Your task to perform on an android device: install app "Google Find My Device" Image 0: 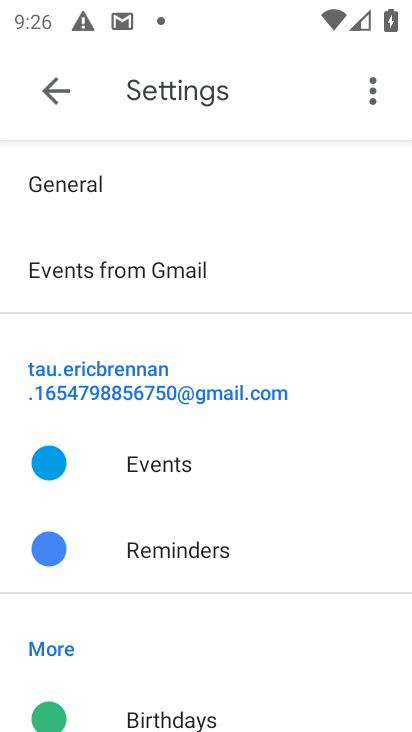
Step 0: press home button
Your task to perform on an android device: install app "Google Find My Device" Image 1: 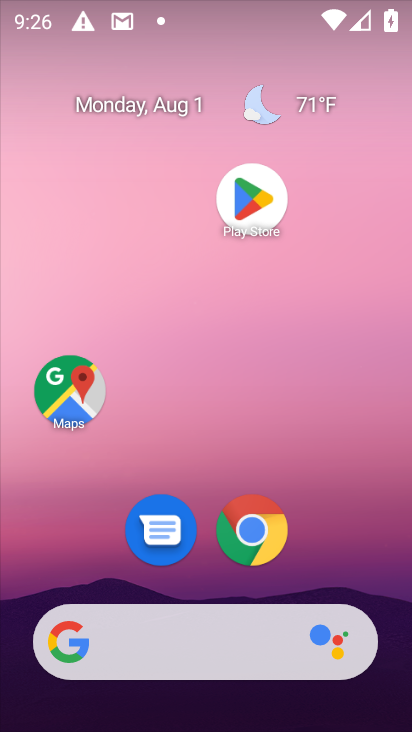
Step 1: click (283, 197)
Your task to perform on an android device: install app "Google Find My Device" Image 2: 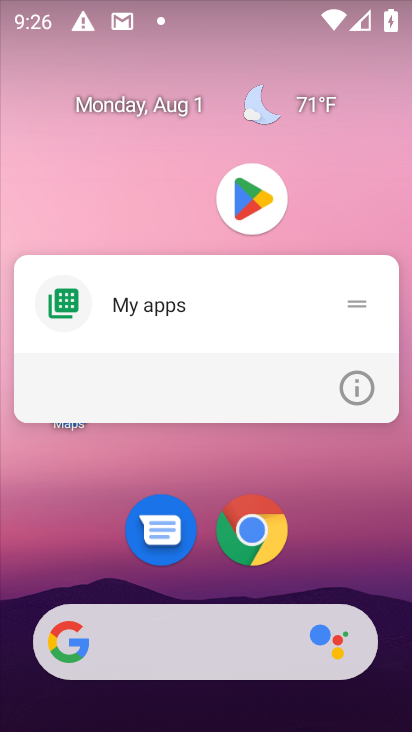
Step 2: click (234, 203)
Your task to perform on an android device: install app "Google Find My Device" Image 3: 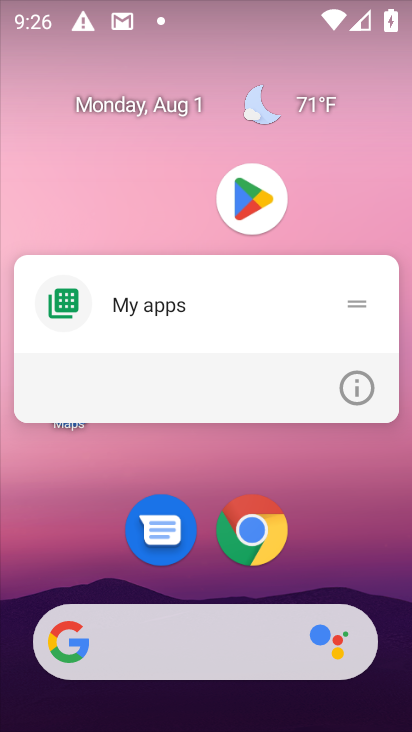
Step 3: click (234, 203)
Your task to perform on an android device: install app "Google Find My Device" Image 4: 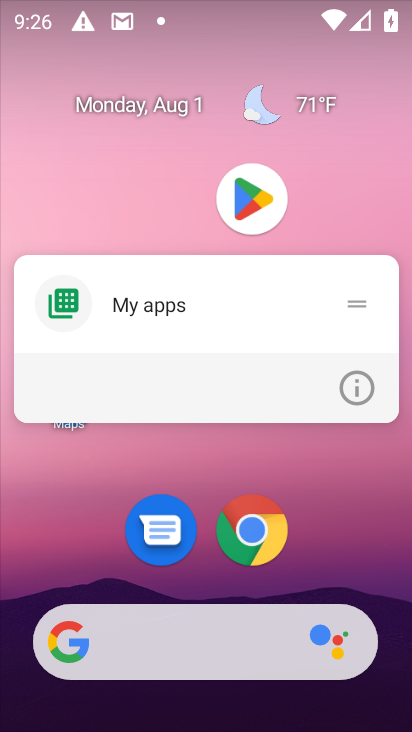
Step 4: click (271, 197)
Your task to perform on an android device: install app "Google Find My Device" Image 5: 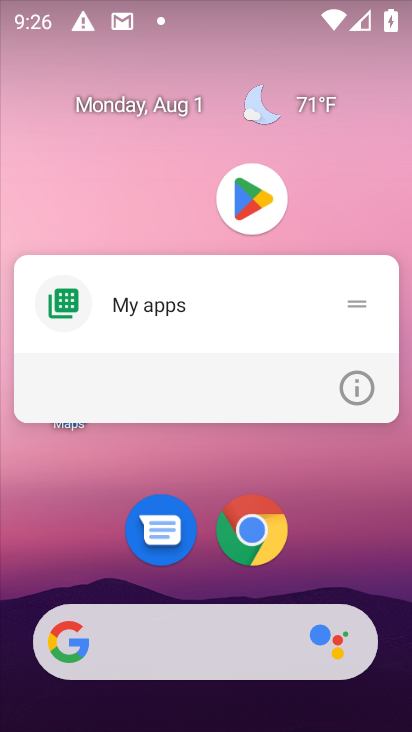
Step 5: click (278, 177)
Your task to perform on an android device: install app "Google Find My Device" Image 6: 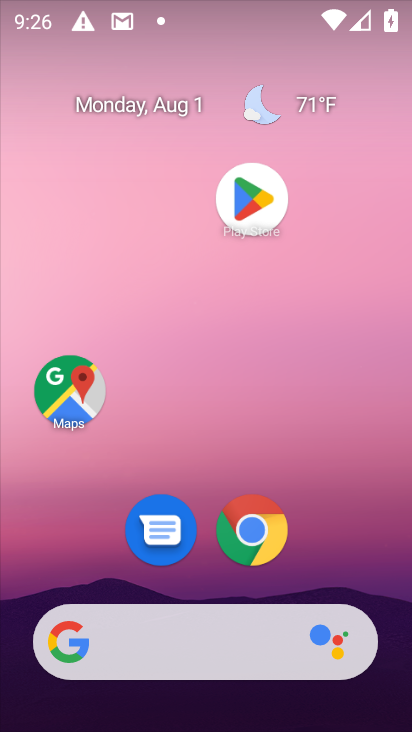
Step 6: click (222, 180)
Your task to perform on an android device: install app "Google Find My Device" Image 7: 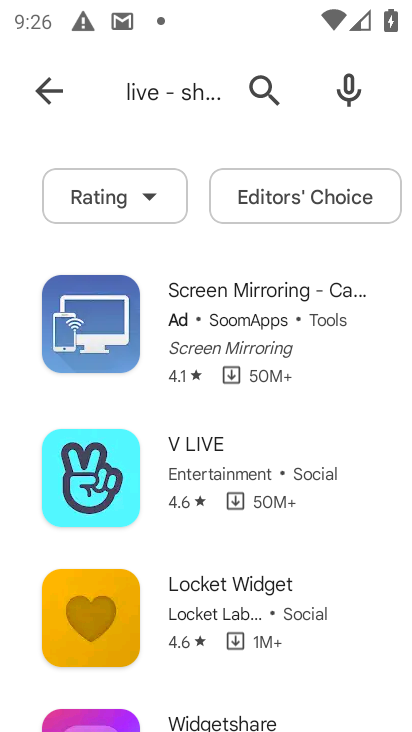
Step 7: click (267, 97)
Your task to perform on an android device: install app "Google Find My Device" Image 8: 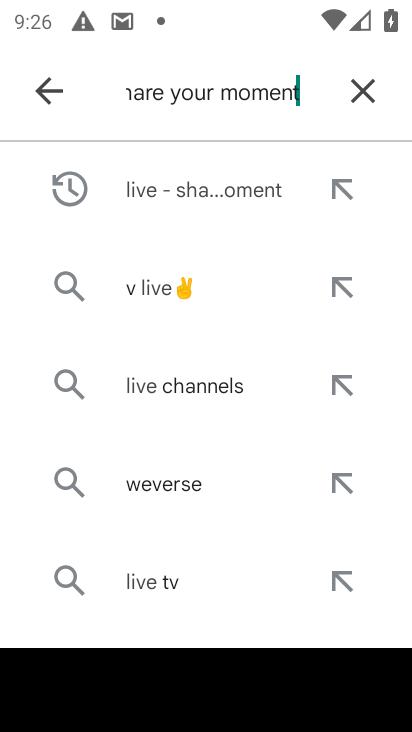
Step 8: click (366, 83)
Your task to perform on an android device: install app "Google Find My Device" Image 9: 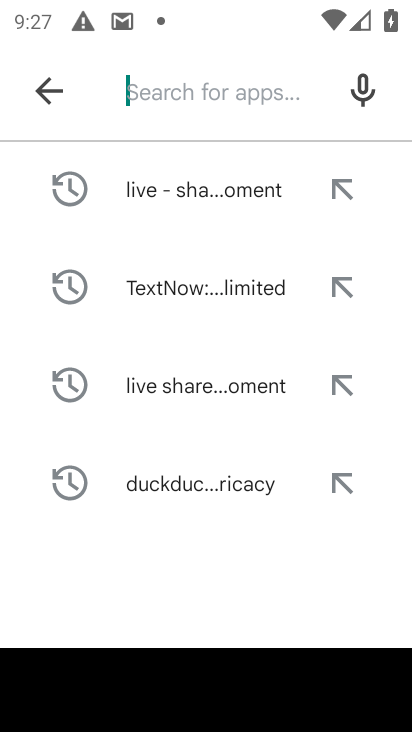
Step 9: type "google  find my device "
Your task to perform on an android device: install app "Google Find My Device" Image 10: 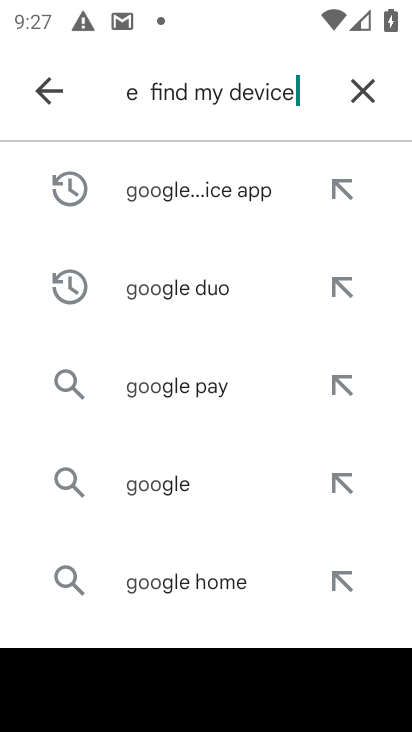
Step 10: type ""
Your task to perform on an android device: install app "Google Find My Device" Image 11: 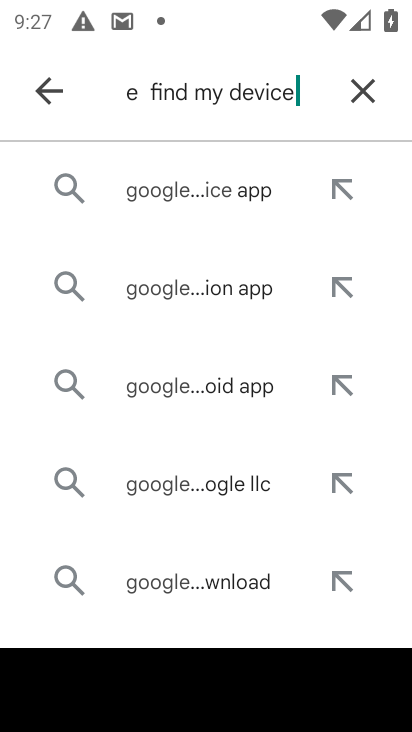
Step 11: press enter
Your task to perform on an android device: install app "Google Find My Device" Image 12: 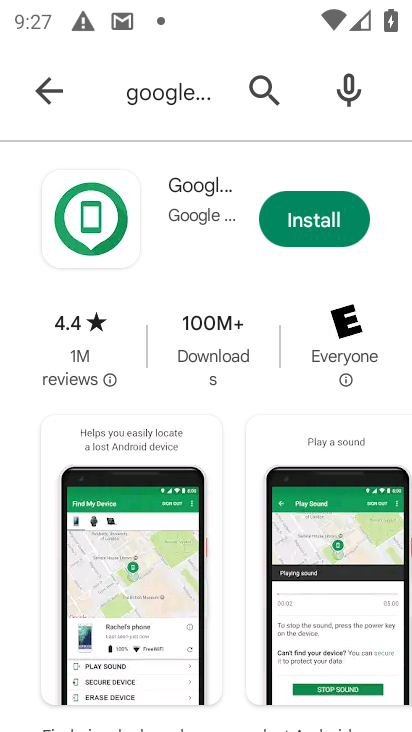
Step 12: click (316, 231)
Your task to perform on an android device: install app "Google Find My Device" Image 13: 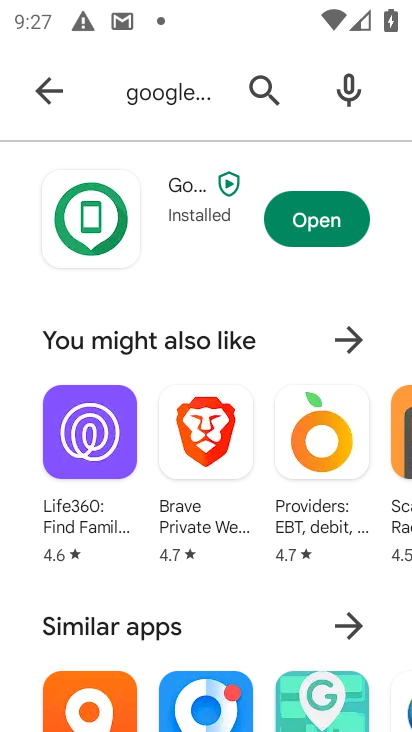
Step 13: task complete